Your task to perform on an android device: turn off priority inbox in the gmail app Image 0: 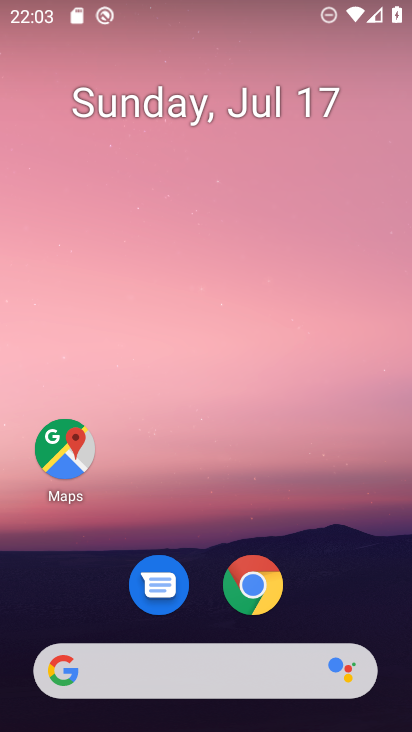
Step 0: press home button
Your task to perform on an android device: turn off priority inbox in the gmail app Image 1: 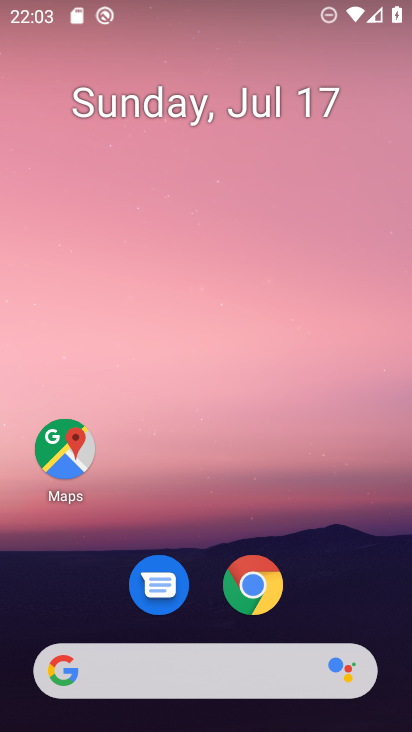
Step 1: drag from (185, 677) to (331, 189)
Your task to perform on an android device: turn off priority inbox in the gmail app Image 2: 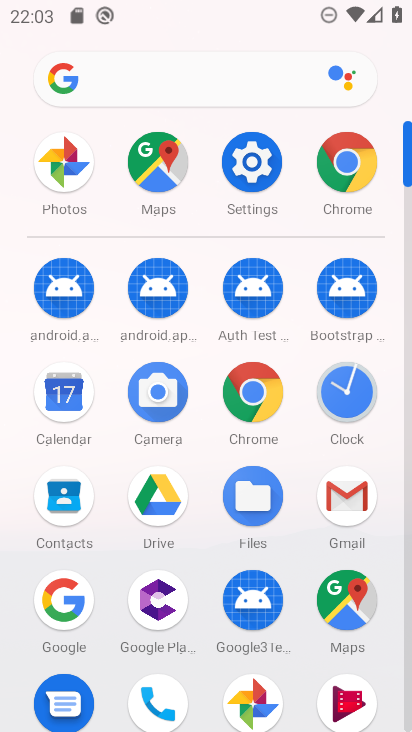
Step 2: click (348, 501)
Your task to perform on an android device: turn off priority inbox in the gmail app Image 3: 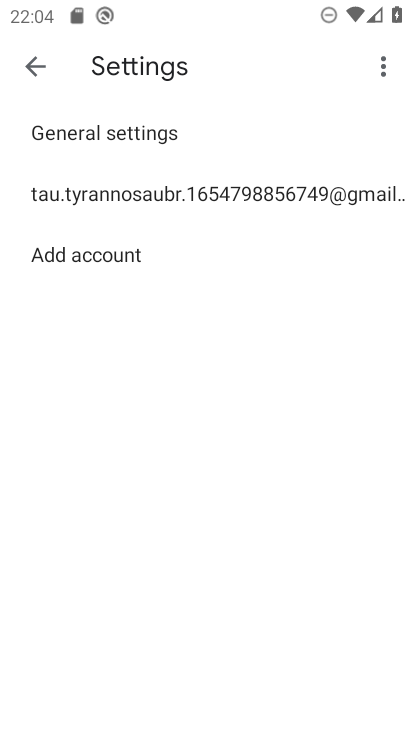
Step 3: click (261, 198)
Your task to perform on an android device: turn off priority inbox in the gmail app Image 4: 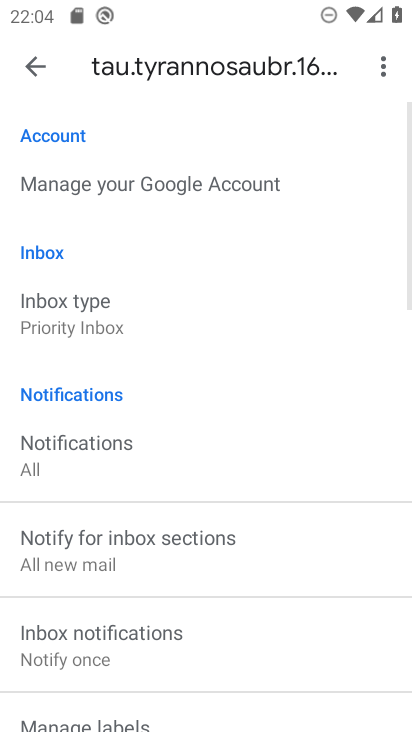
Step 4: click (86, 324)
Your task to perform on an android device: turn off priority inbox in the gmail app Image 5: 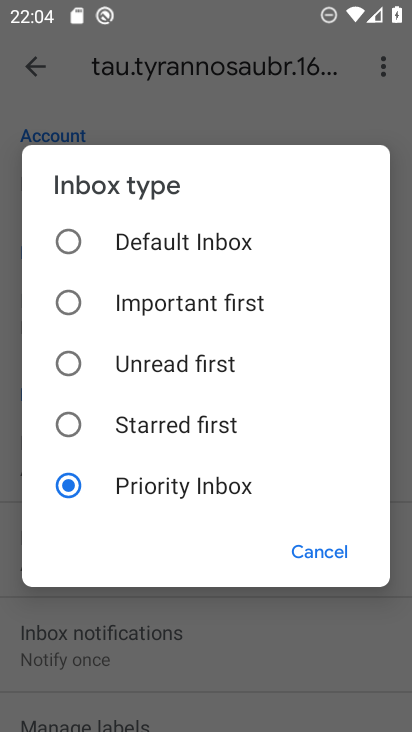
Step 5: click (73, 243)
Your task to perform on an android device: turn off priority inbox in the gmail app Image 6: 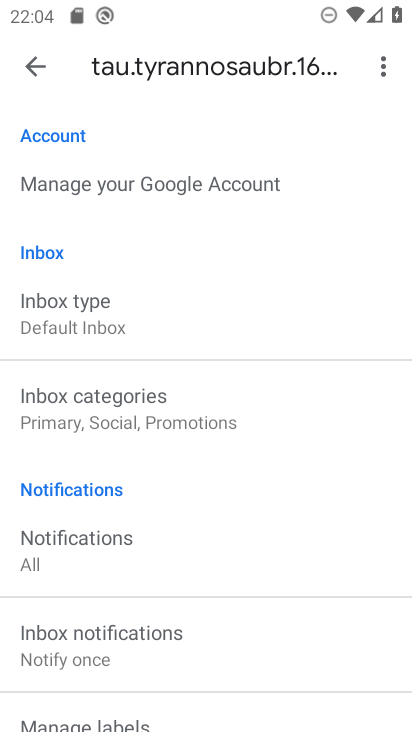
Step 6: task complete